Your task to perform on an android device: find snoozed emails in the gmail app Image 0: 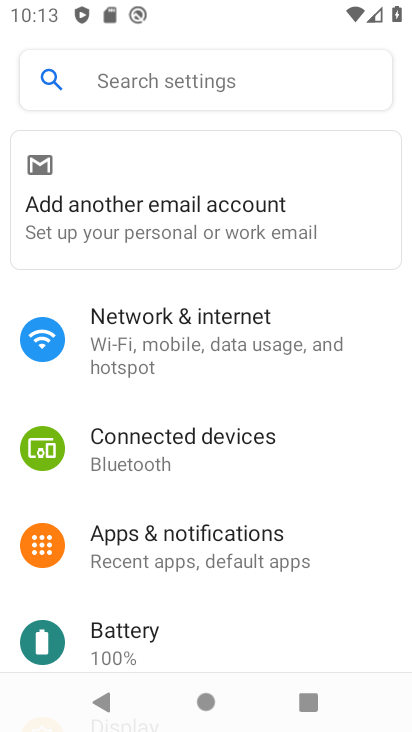
Step 0: press home button
Your task to perform on an android device: find snoozed emails in the gmail app Image 1: 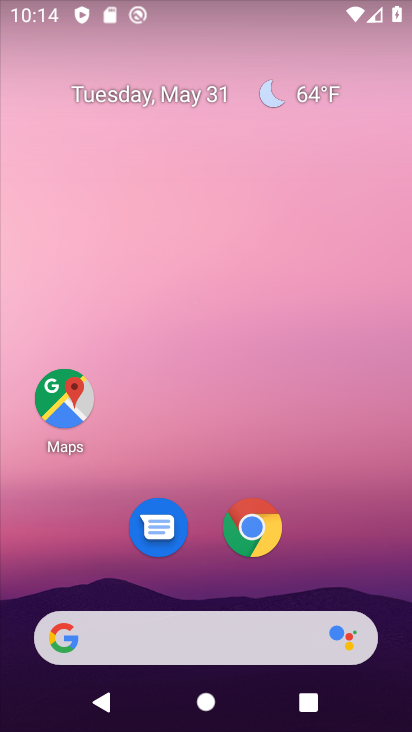
Step 1: drag from (137, 701) to (227, 83)
Your task to perform on an android device: find snoozed emails in the gmail app Image 2: 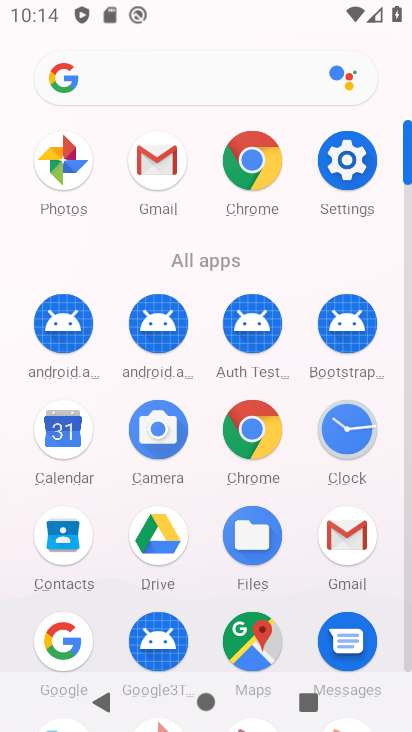
Step 2: click (152, 163)
Your task to perform on an android device: find snoozed emails in the gmail app Image 3: 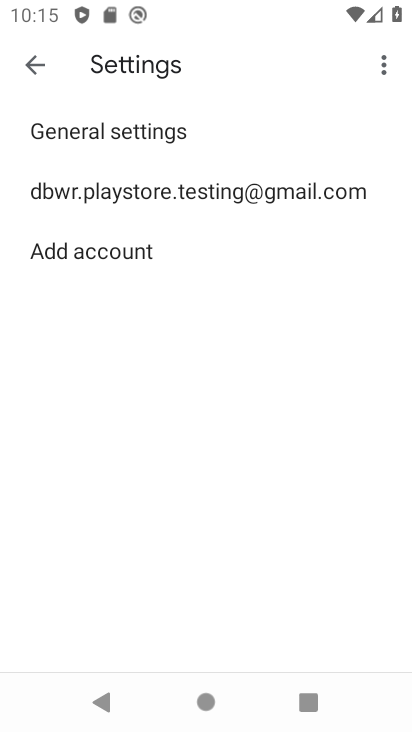
Step 3: click (155, 188)
Your task to perform on an android device: find snoozed emails in the gmail app Image 4: 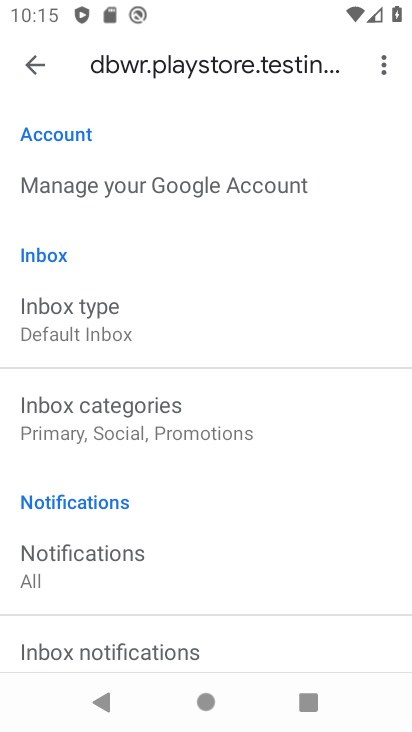
Step 4: click (44, 72)
Your task to perform on an android device: find snoozed emails in the gmail app Image 5: 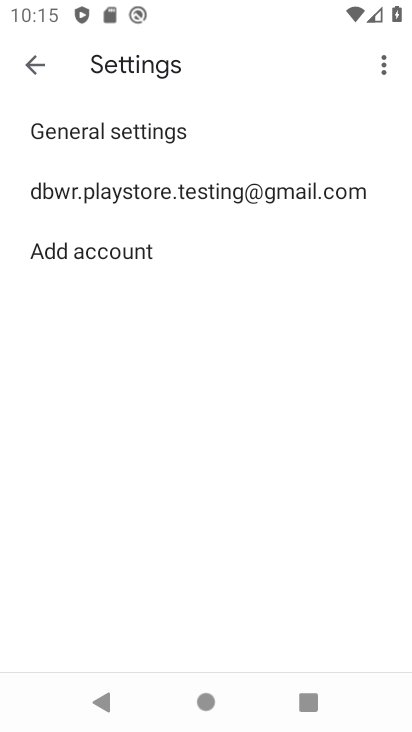
Step 5: click (37, 70)
Your task to perform on an android device: find snoozed emails in the gmail app Image 6: 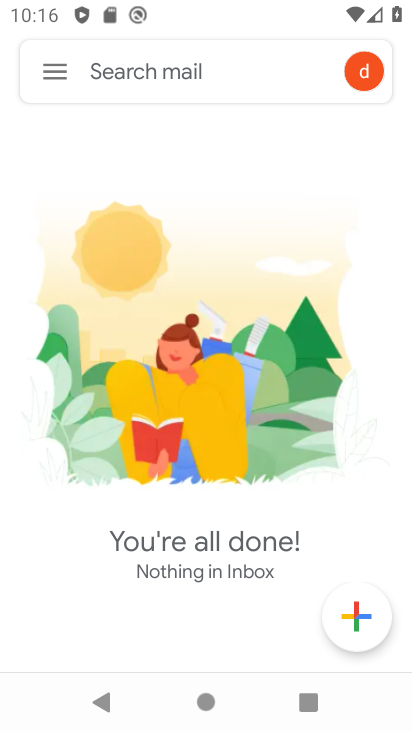
Step 6: click (64, 69)
Your task to perform on an android device: find snoozed emails in the gmail app Image 7: 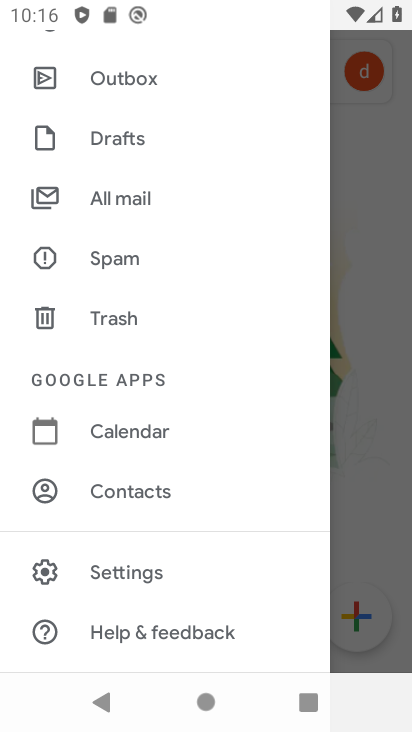
Step 7: drag from (179, 118) to (193, 637)
Your task to perform on an android device: find snoozed emails in the gmail app Image 8: 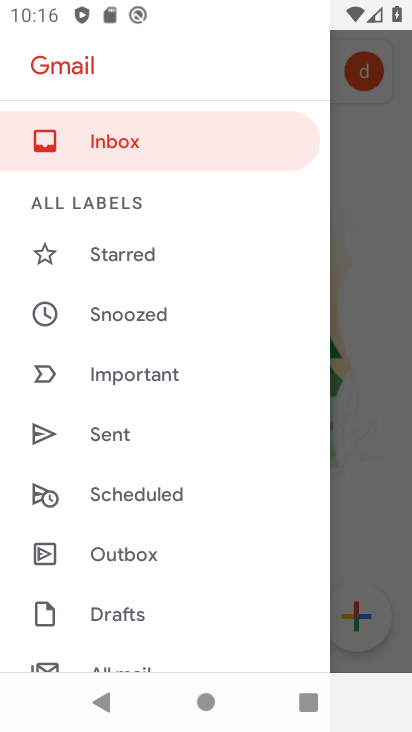
Step 8: click (153, 310)
Your task to perform on an android device: find snoozed emails in the gmail app Image 9: 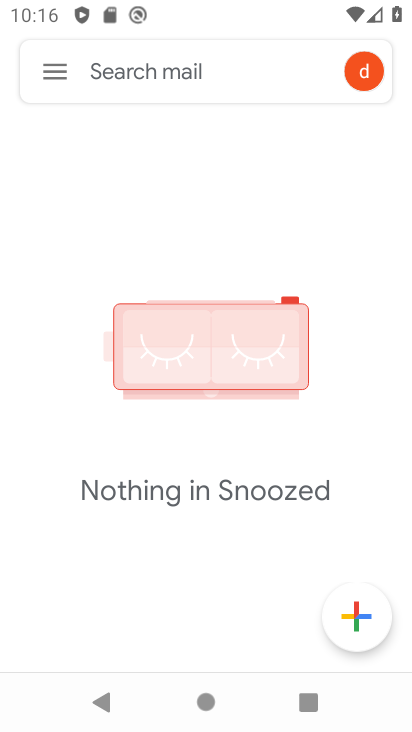
Step 9: task complete